Your task to perform on an android device: turn off airplane mode Image 0: 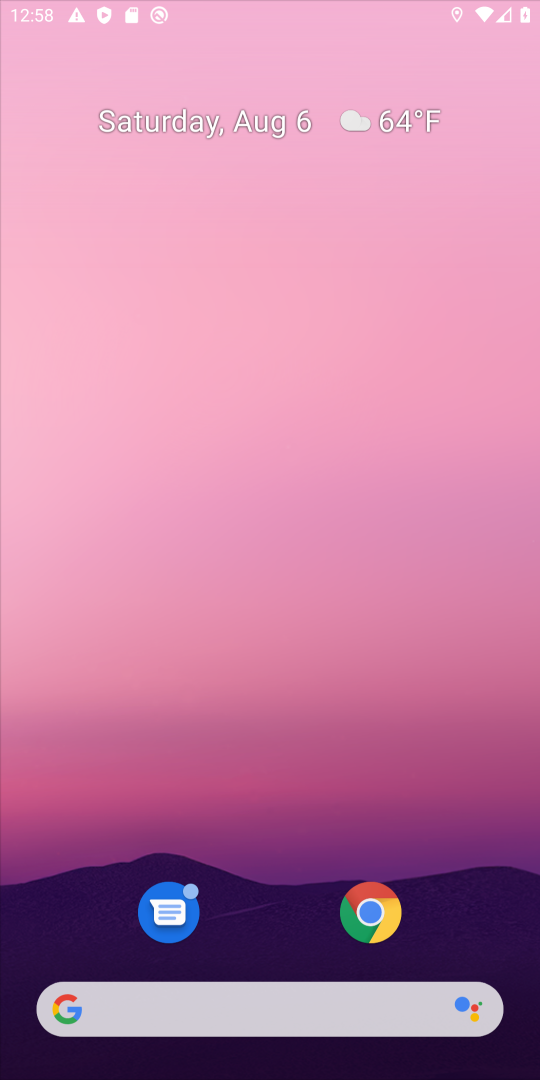
Step 0: press home button
Your task to perform on an android device: turn off airplane mode Image 1: 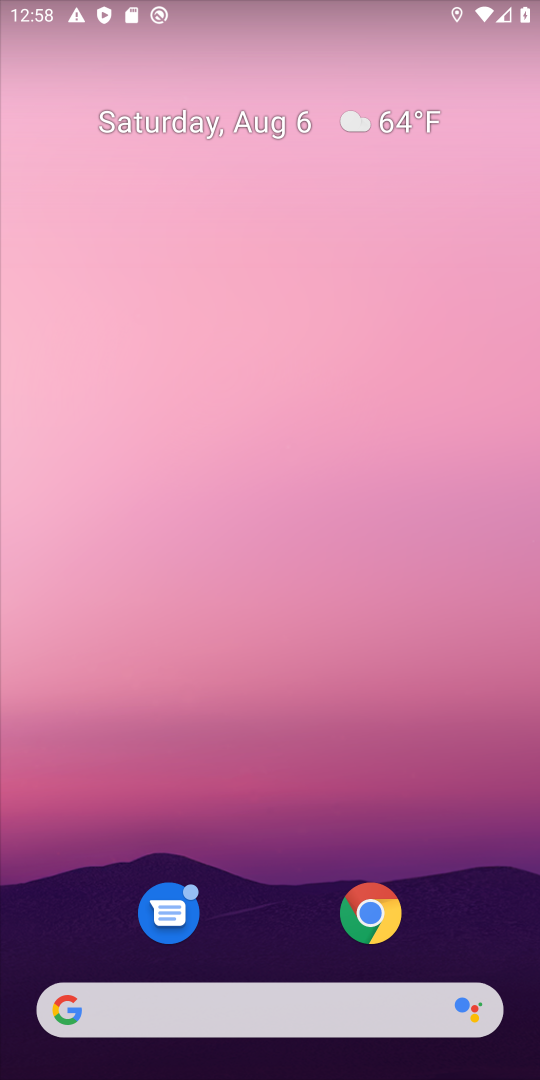
Step 1: drag from (474, 938) to (506, 337)
Your task to perform on an android device: turn off airplane mode Image 2: 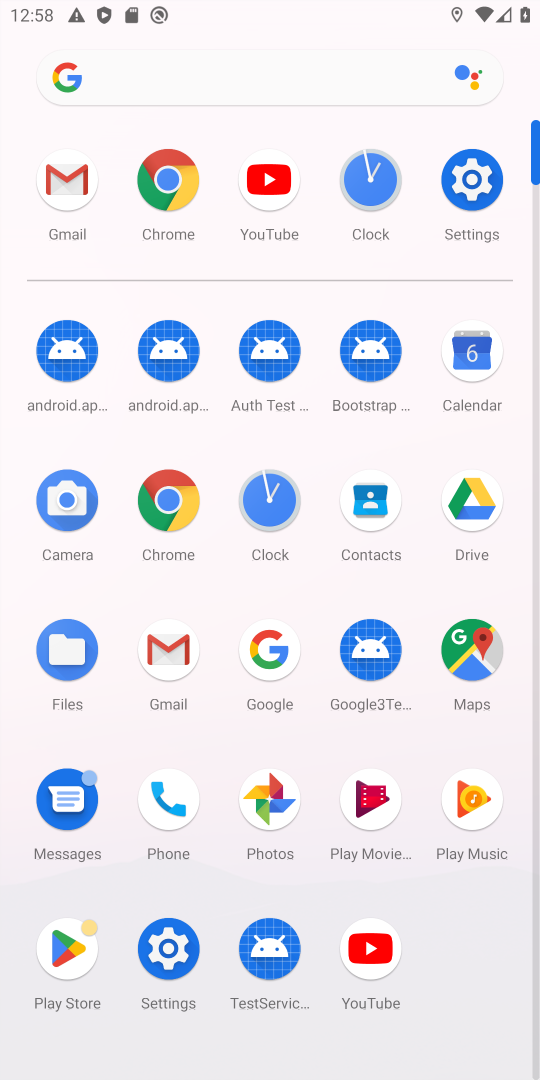
Step 2: click (476, 184)
Your task to perform on an android device: turn off airplane mode Image 3: 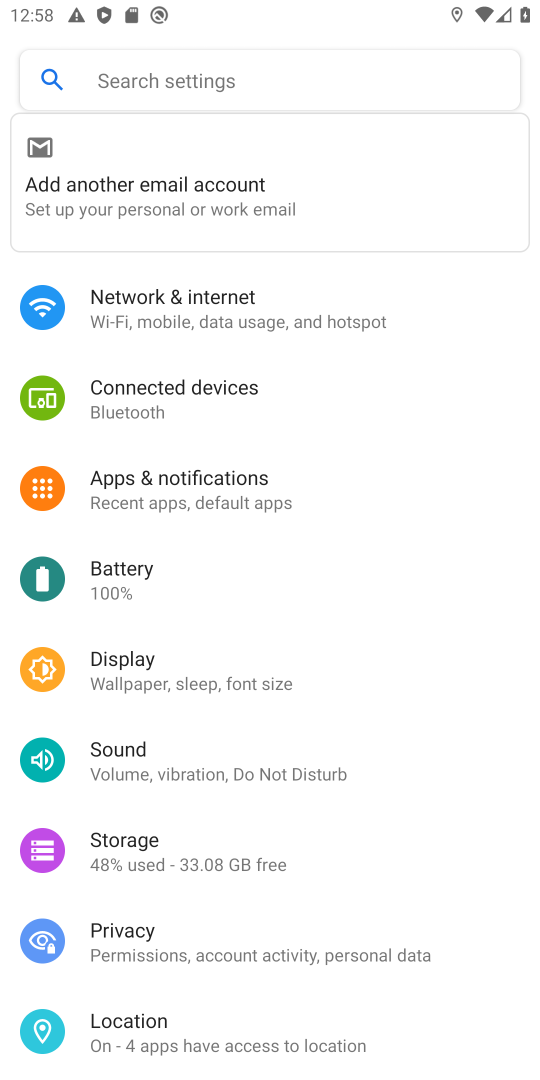
Step 3: drag from (458, 799) to (449, 595)
Your task to perform on an android device: turn off airplane mode Image 4: 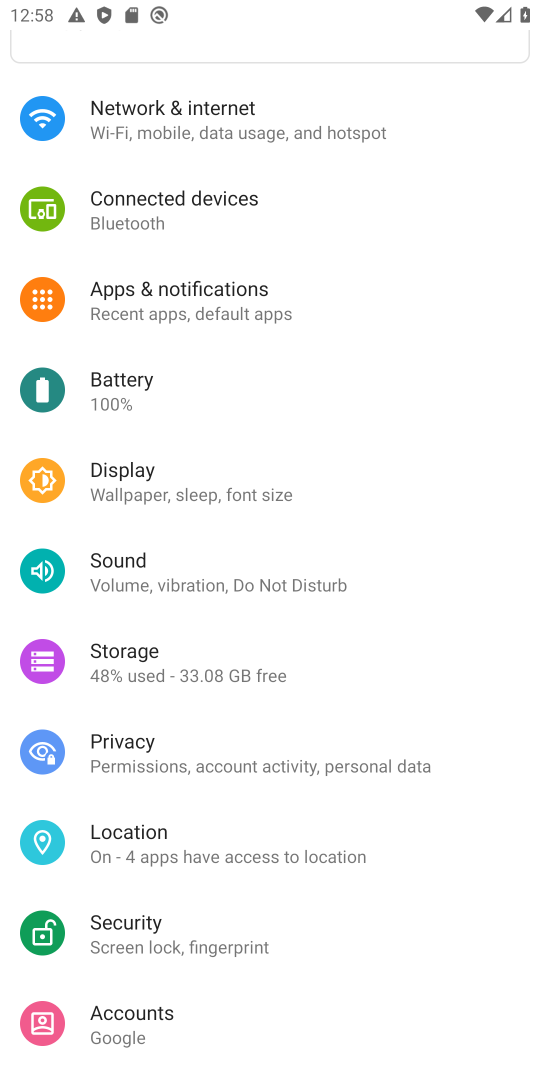
Step 4: drag from (449, 842) to (450, 660)
Your task to perform on an android device: turn off airplane mode Image 5: 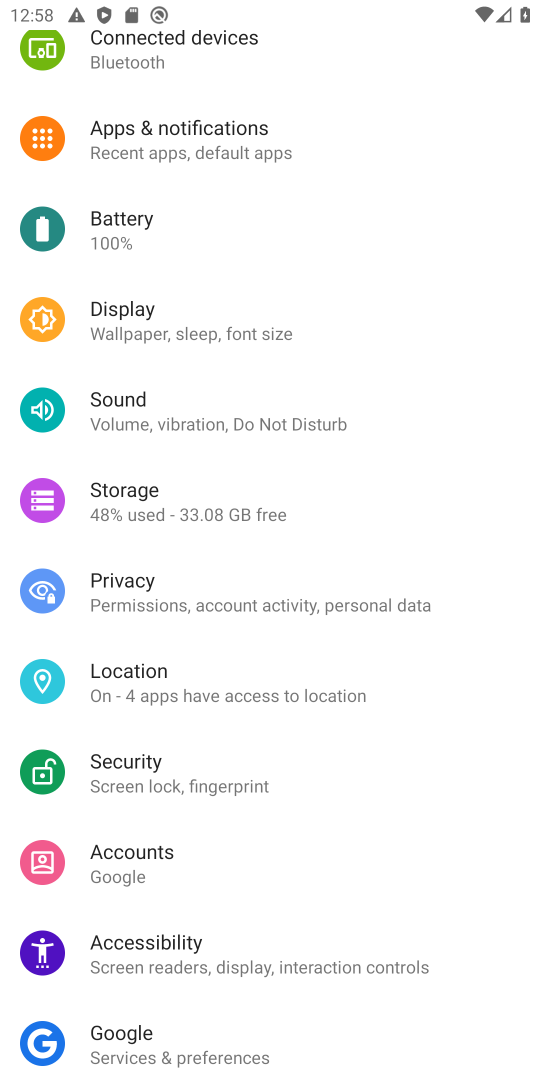
Step 5: drag from (471, 901) to (472, 694)
Your task to perform on an android device: turn off airplane mode Image 6: 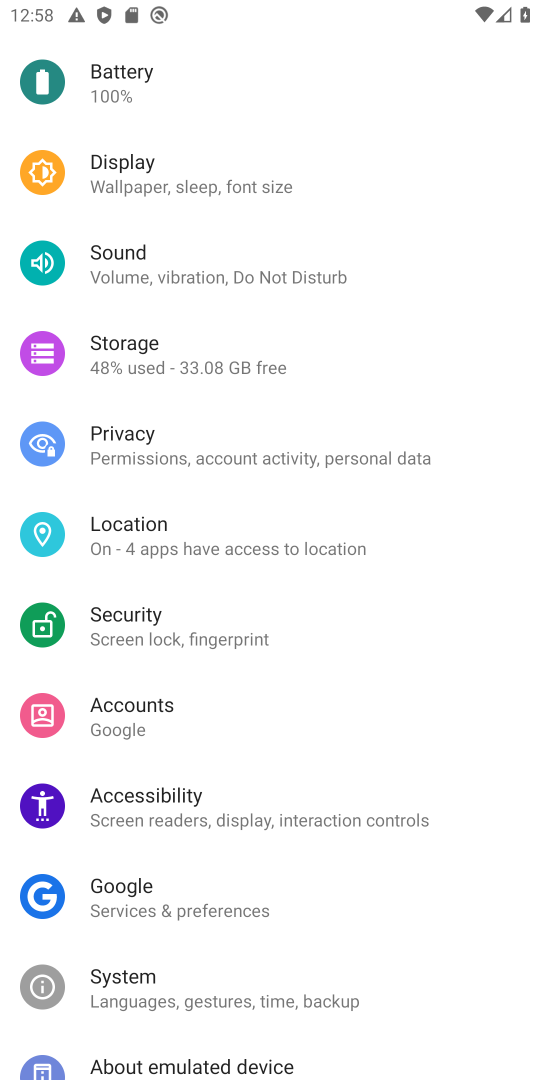
Step 6: drag from (469, 925) to (458, 619)
Your task to perform on an android device: turn off airplane mode Image 7: 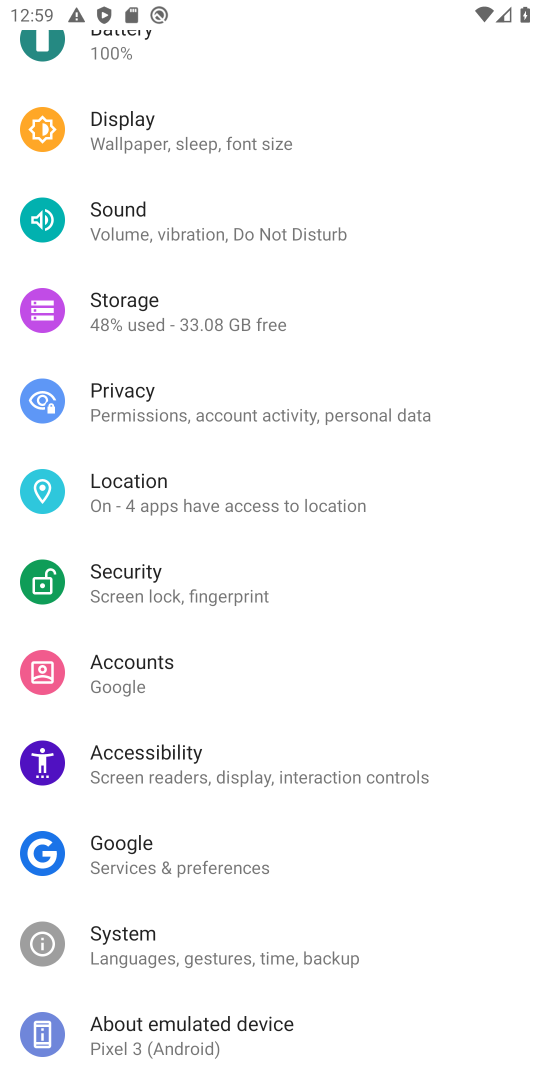
Step 7: drag from (477, 494) to (429, 708)
Your task to perform on an android device: turn off airplane mode Image 8: 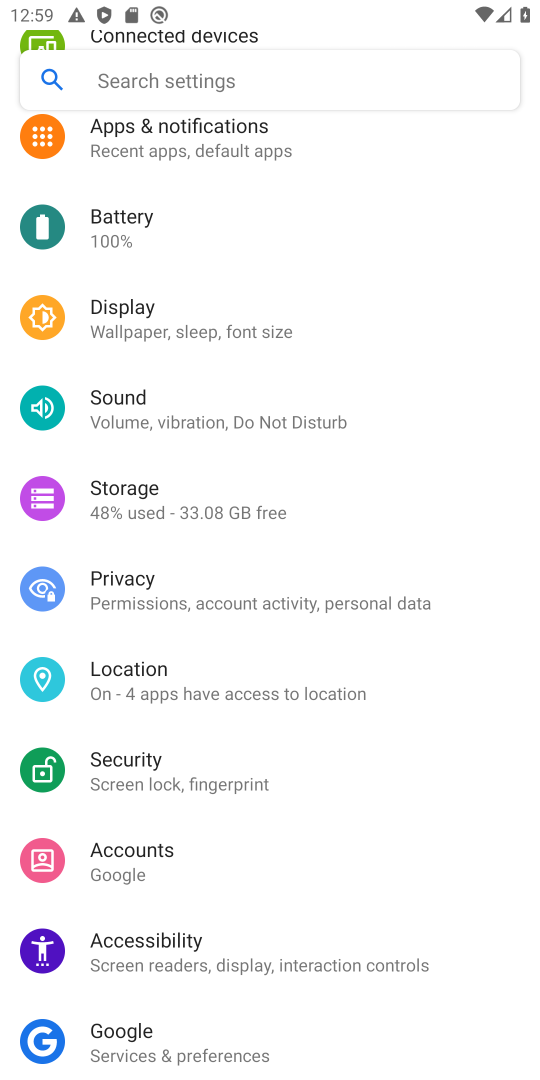
Step 8: drag from (469, 429) to (461, 620)
Your task to perform on an android device: turn off airplane mode Image 9: 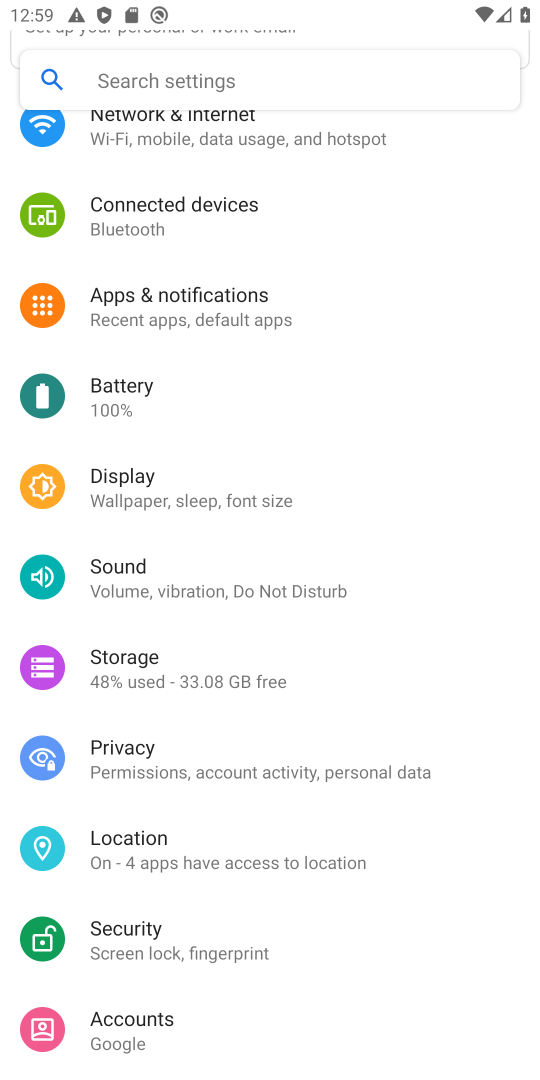
Step 9: drag from (457, 430) to (462, 707)
Your task to perform on an android device: turn off airplane mode Image 10: 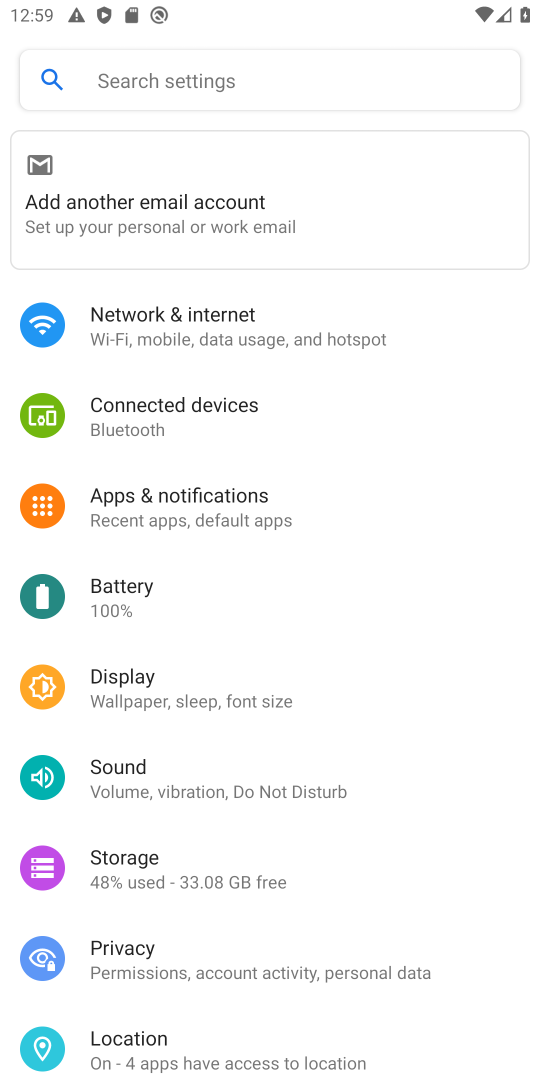
Step 10: click (323, 324)
Your task to perform on an android device: turn off airplane mode Image 11: 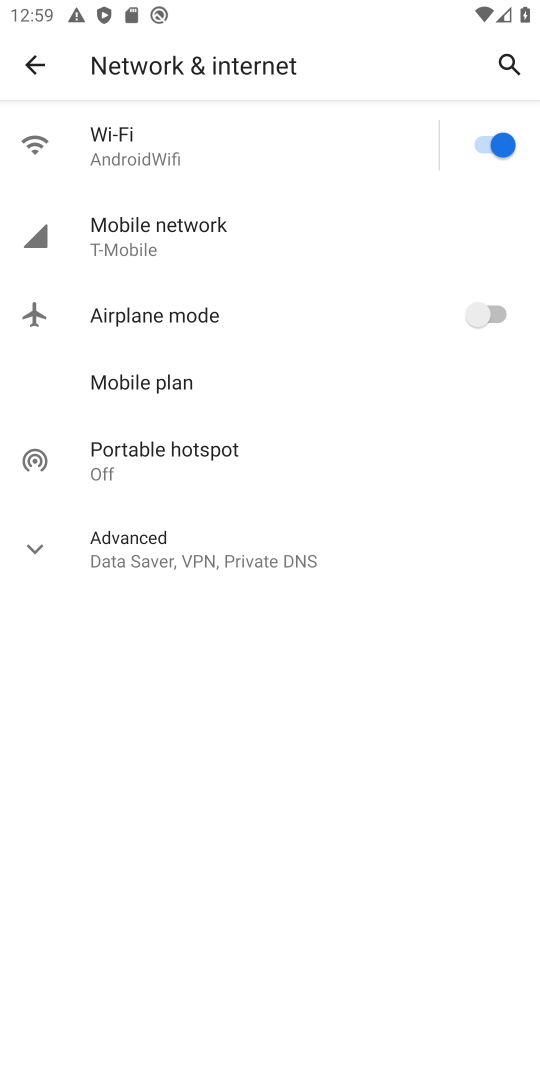
Step 11: task complete